Your task to perform on an android device: turn on data saver in the chrome app Image 0: 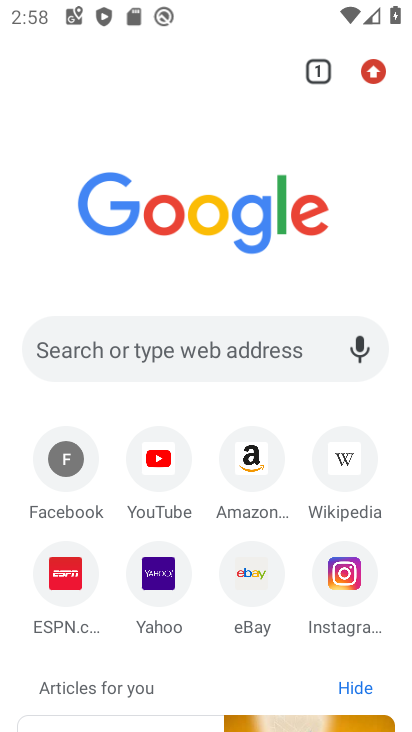
Step 0: click (379, 69)
Your task to perform on an android device: turn on data saver in the chrome app Image 1: 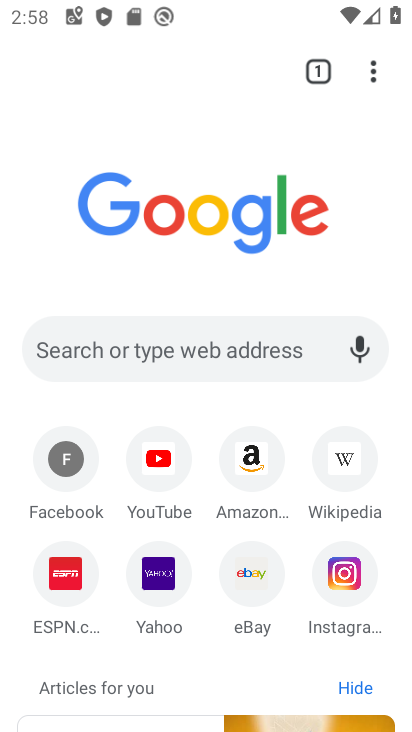
Step 1: click (379, 69)
Your task to perform on an android device: turn on data saver in the chrome app Image 2: 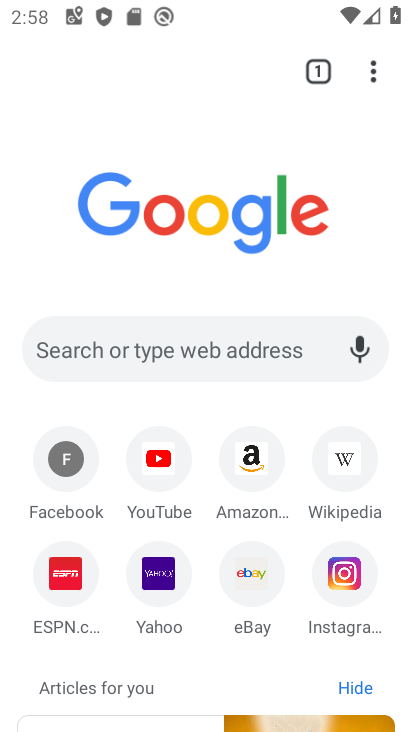
Step 2: click (410, 88)
Your task to perform on an android device: turn on data saver in the chrome app Image 3: 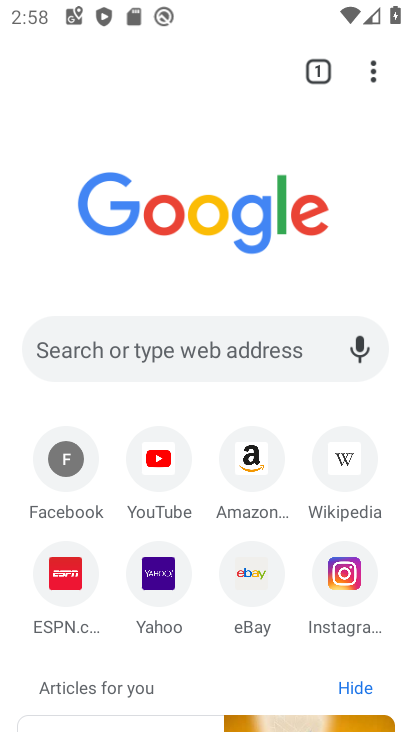
Step 3: click (387, 78)
Your task to perform on an android device: turn on data saver in the chrome app Image 4: 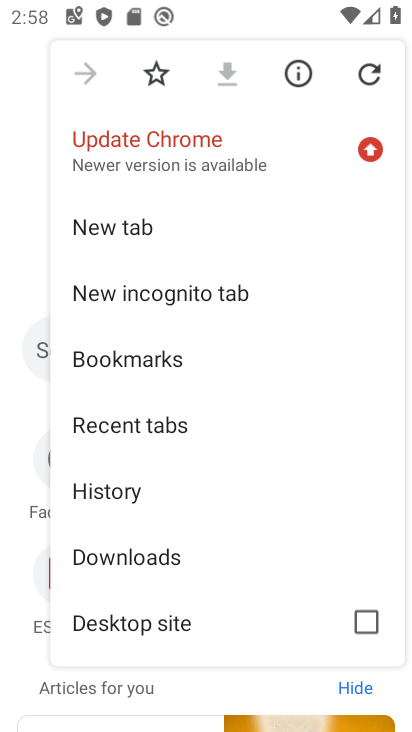
Step 4: drag from (162, 541) to (145, 190)
Your task to perform on an android device: turn on data saver in the chrome app Image 5: 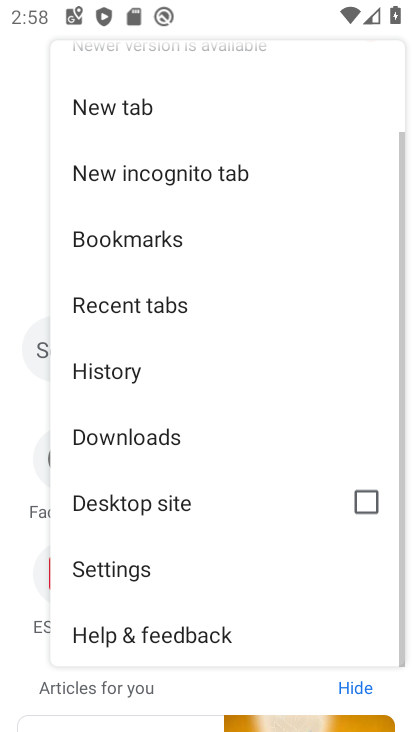
Step 5: click (137, 561)
Your task to perform on an android device: turn on data saver in the chrome app Image 6: 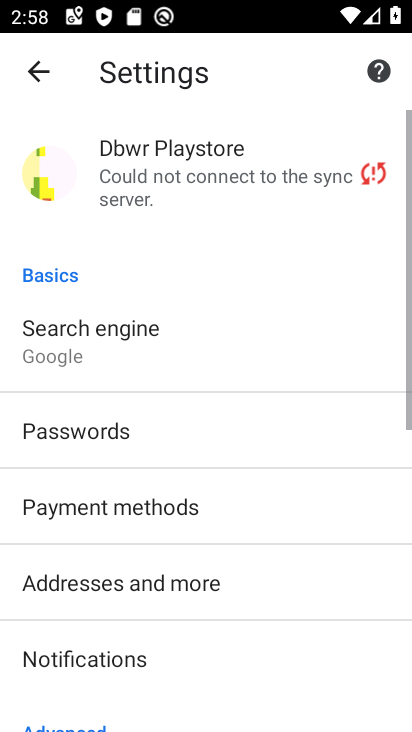
Step 6: drag from (166, 564) to (165, 180)
Your task to perform on an android device: turn on data saver in the chrome app Image 7: 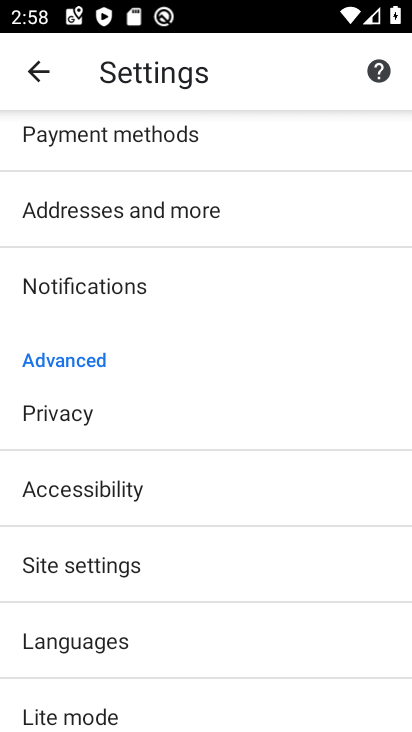
Step 7: drag from (118, 637) to (76, 340)
Your task to perform on an android device: turn on data saver in the chrome app Image 8: 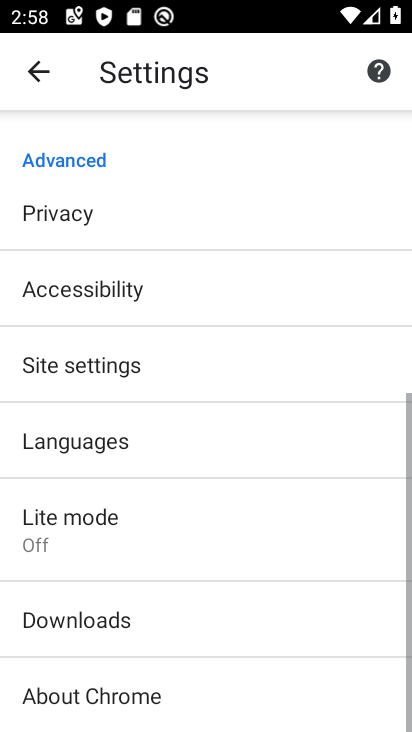
Step 8: click (87, 520)
Your task to perform on an android device: turn on data saver in the chrome app Image 9: 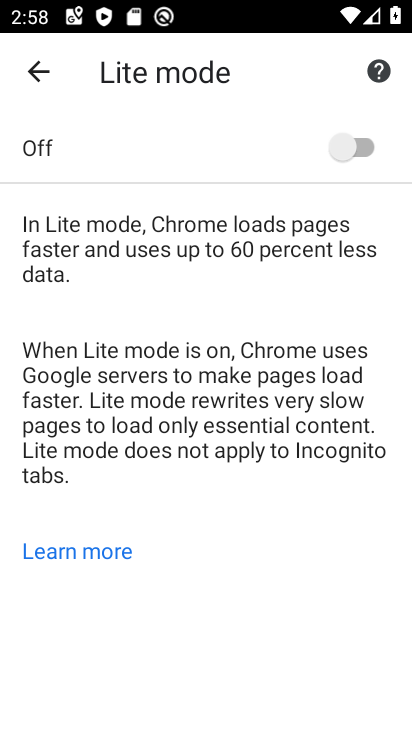
Step 9: click (361, 162)
Your task to perform on an android device: turn on data saver in the chrome app Image 10: 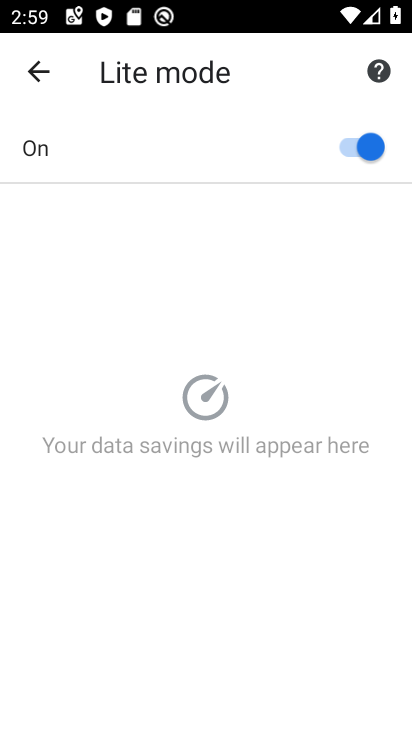
Step 10: task complete